Your task to perform on an android device: turn on showing notifications on the lock screen Image 0: 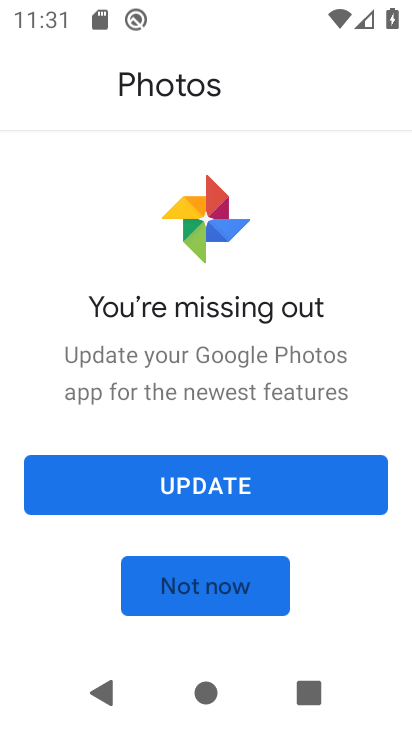
Step 0: press back button
Your task to perform on an android device: turn on showing notifications on the lock screen Image 1: 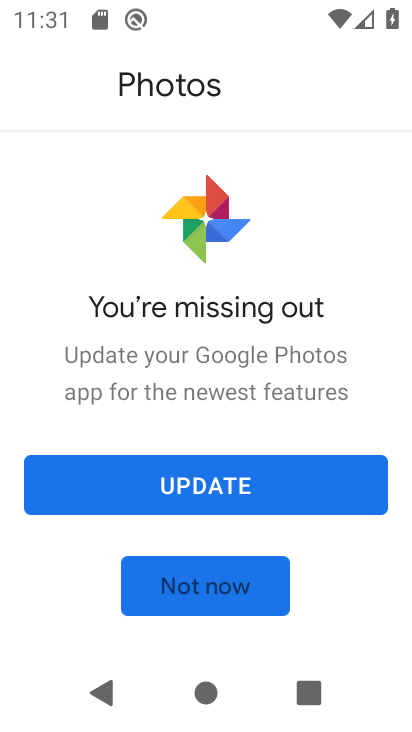
Step 1: press home button
Your task to perform on an android device: turn on showing notifications on the lock screen Image 2: 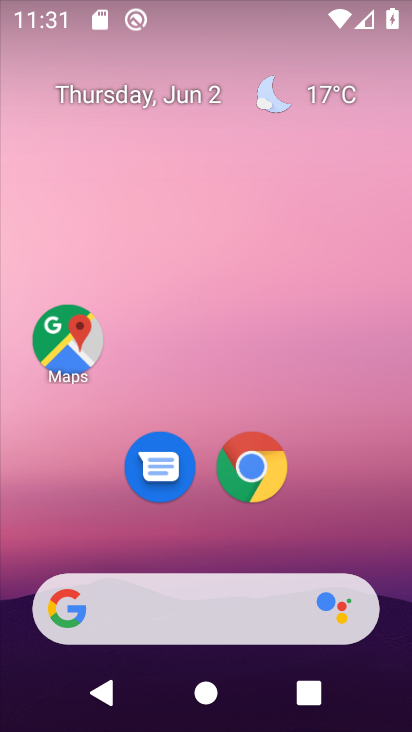
Step 2: drag from (222, 520) to (238, 248)
Your task to perform on an android device: turn on showing notifications on the lock screen Image 3: 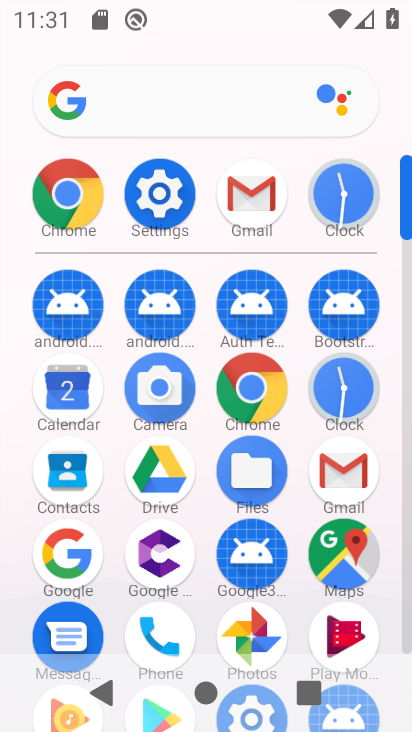
Step 3: click (160, 190)
Your task to perform on an android device: turn on showing notifications on the lock screen Image 4: 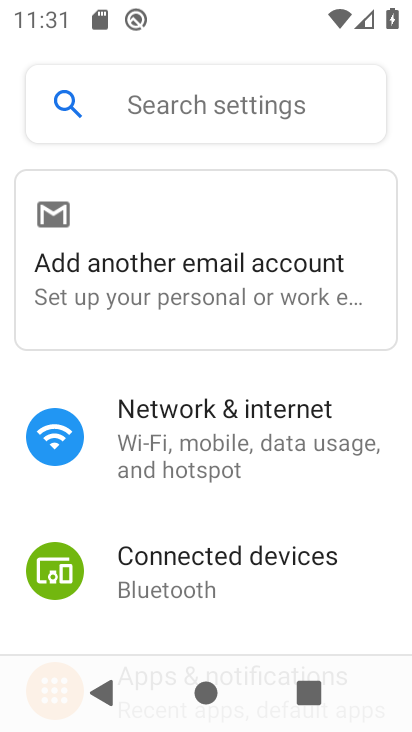
Step 4: drag from (242, 569) to (293, 292)
Your task to perform on an android device: turn on showing notifications on the lock screen Image 5: 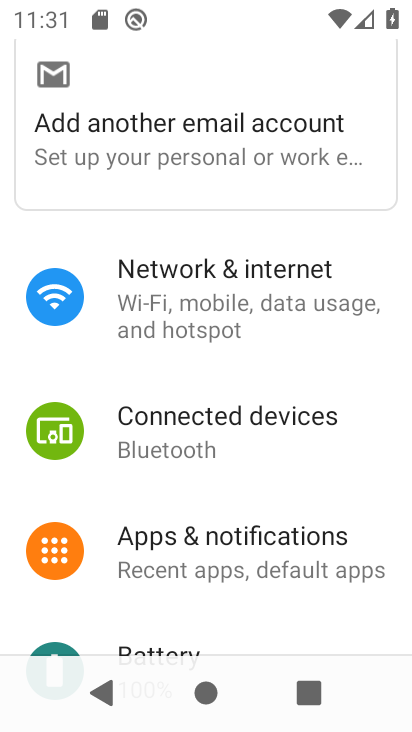
Step 5: click (257, 530)
Your task to perform on an android device: turn on showing notifications on the lock screen Image 6: 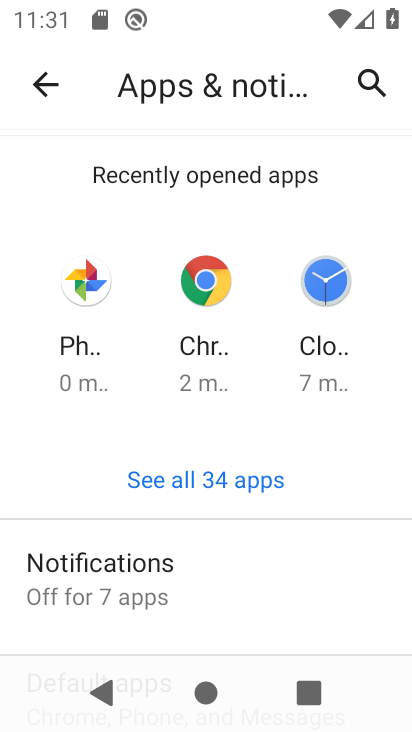
Step 6: drag from (219, 599) to (248, 266)
Your task to perform on an android device: turn on showing notifications on the lock screen Image 7: 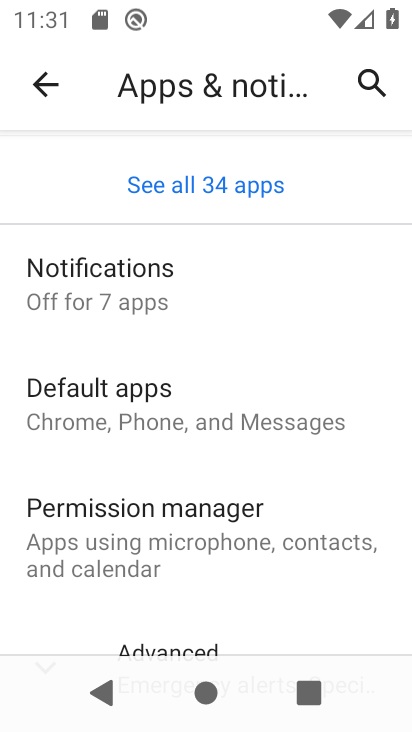
Step 7: drag from (172, 544) to (203, 239)
Your task to perform on an android device: turn on showing notifications on the lock screen Image 8: 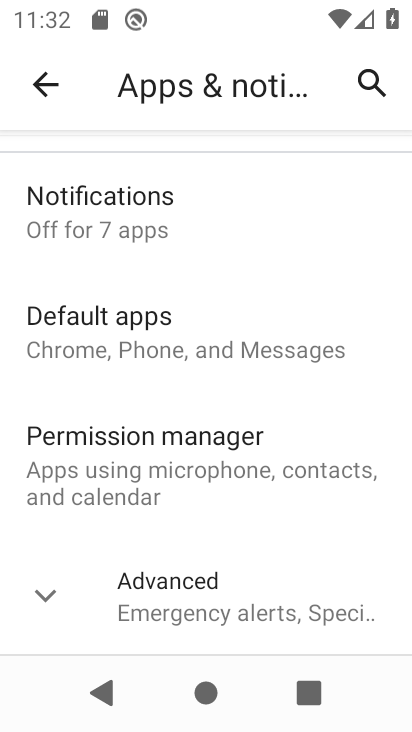
Step 8: click (139, 222)
Your task to perform on an android device: turn on showing notifications on the lock screen Image 9: 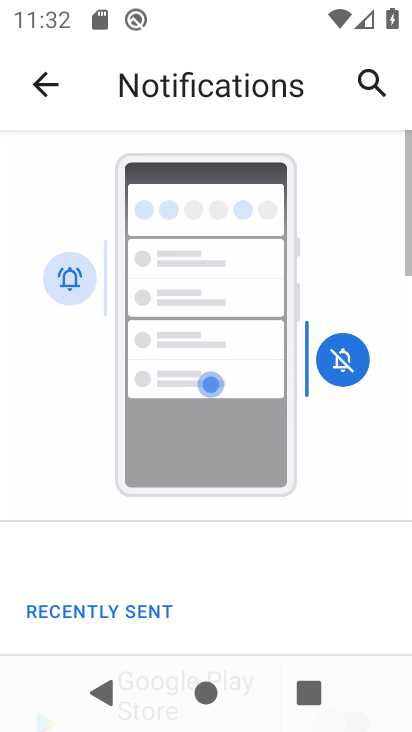
Step 9: drag from (159, 594) to (211, 286)
Your task to perform on an android device: turn on showing notifications on the lock screen Image 10: 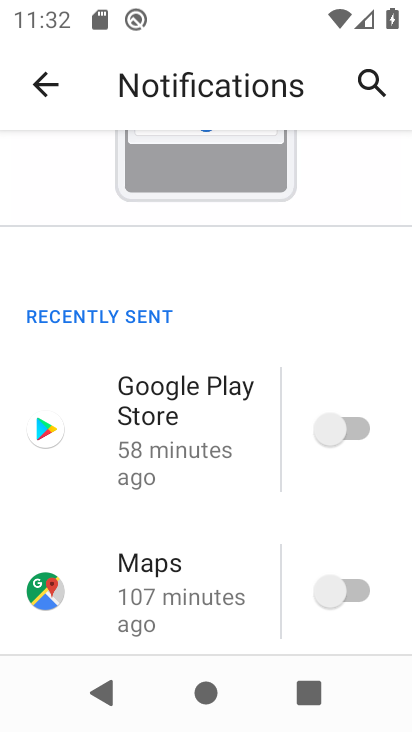
Step 10: drag from (204, 443) to (219, 176)
Your task to perform on an android device: turn on showing notifications on the lock screen Image 11: 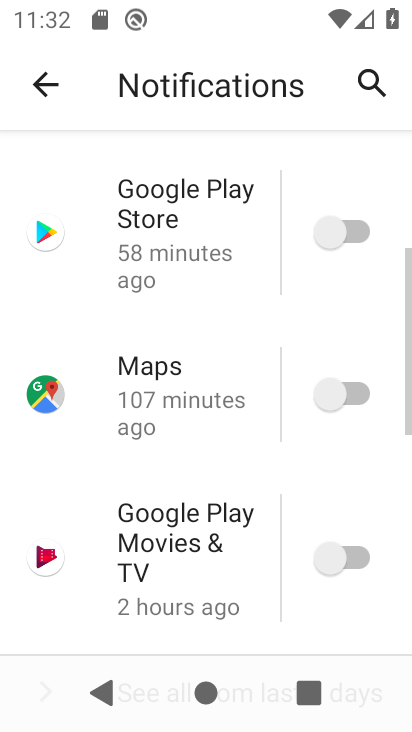
Step 11: drag from (193, 528) to (245, 152)
Your task to perform on an android device: turn on showing notifications on the lock screen Image 12: 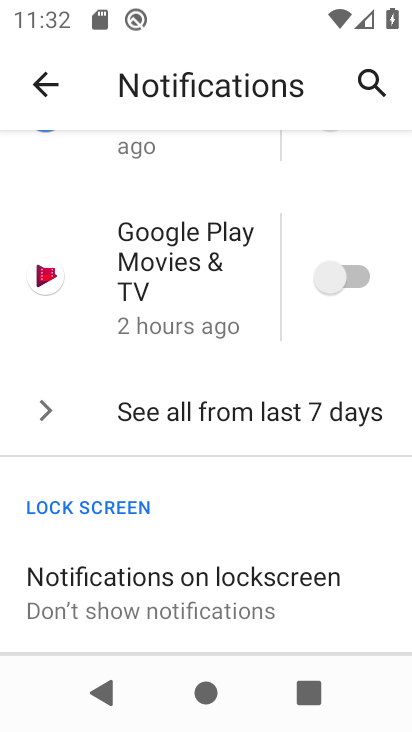
Step 12: click (163, 582)
Your task to perform on an android device: turn on showing notifications on the lock screen Image 13: 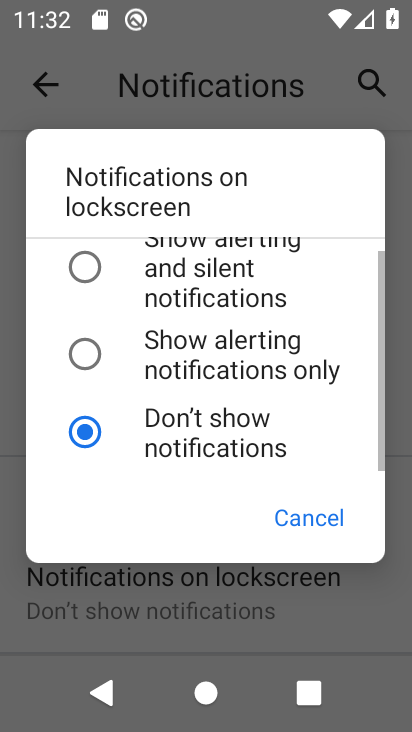
Step 13: click (154, 261)
Your task to perform on an android device: turn on showing notifications on the lock screen Image 14: 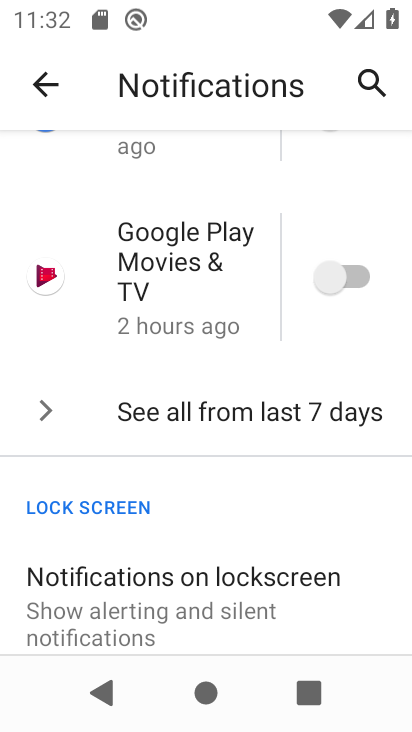
Step 14: task complete